Your task to perform on an android device: When is my next appointment? Image 0: 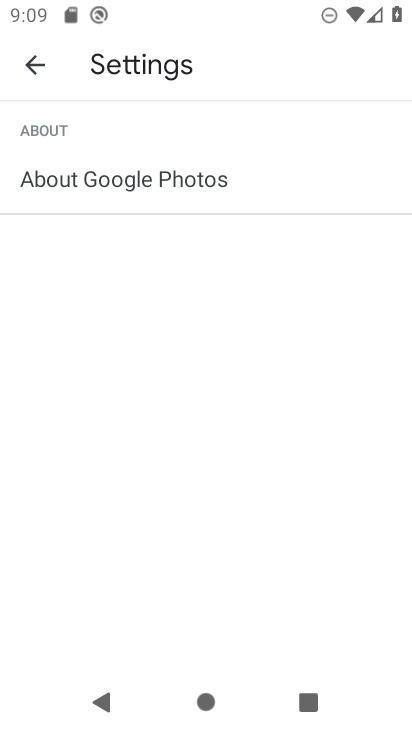
Step 0: press home button
Your task to perform on an android device: When is my next appointment? Image 1: 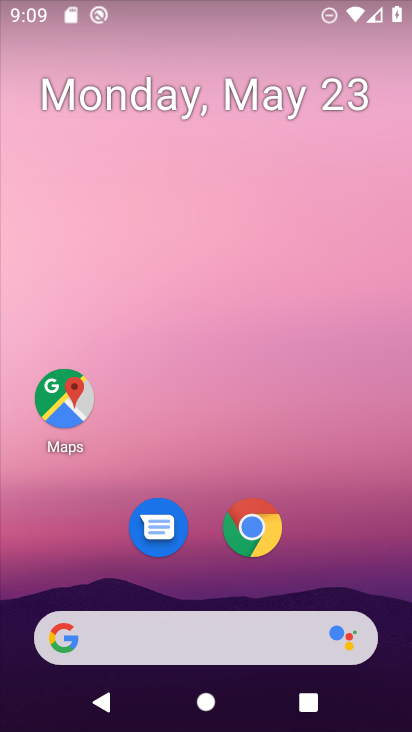
Step 1: drag from (206, 450) to (208, 2)
Your task to perform on an android device: When is my next appointment? Image 2: 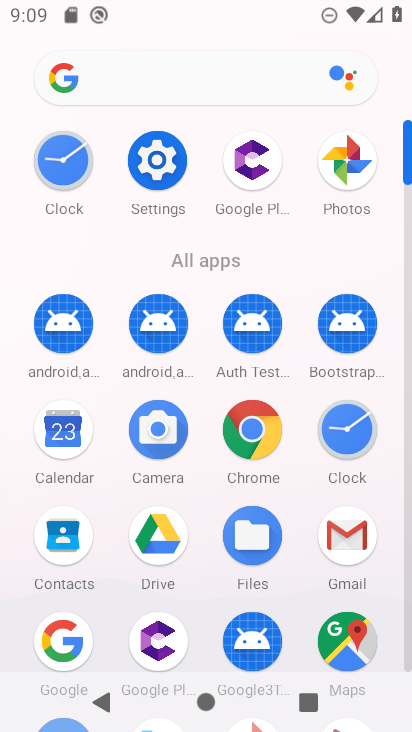
Step 2: click (68, 425)
Your task to perform on an android device: When is my next appointment? Image 3: 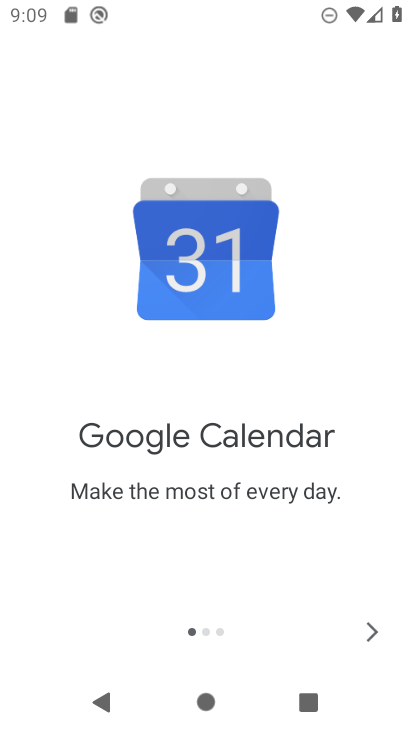
Step 3: click (362, 621)
Your task to perform on an android device: When is my next appointment? Image 4: 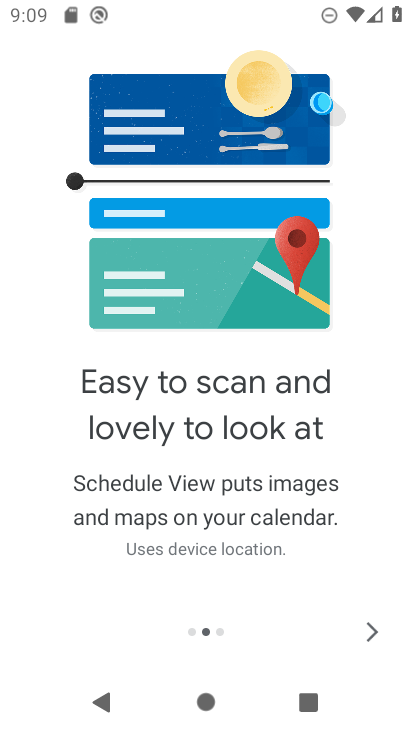
Step 4: click (367, 626)
Your task to perform on an android device: When is my next appointment? Image 5: 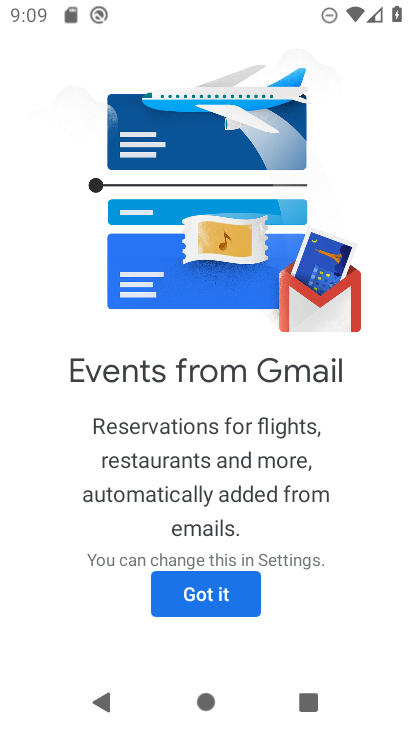
Step 5: click (204, 585)
Your task to perform on an android device: When is my next appointment? Image 6: 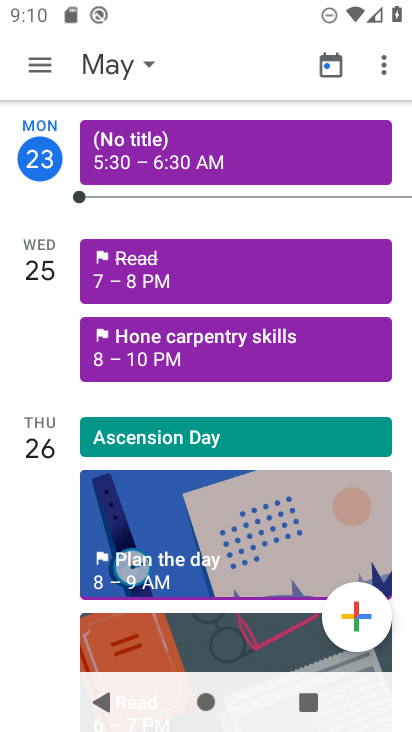
Step 6: task complete